Your task to perform on an android device: turn on bluetooth scan Image 0: 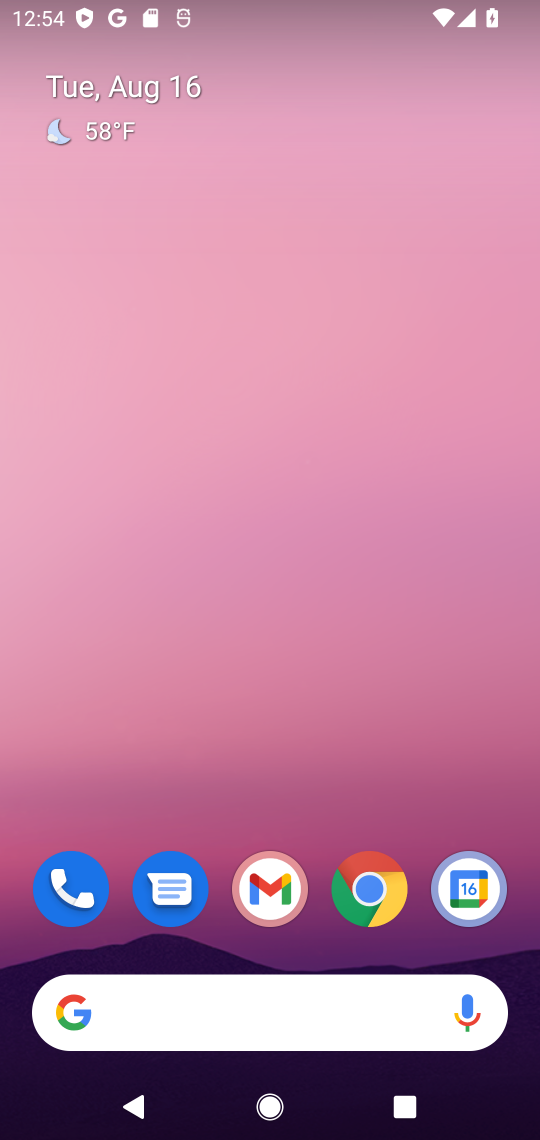
Step 0: drag from (224, 1030) to (152, 60)
Your task to perform on an android device: turn on bluetooth scan Image 1: 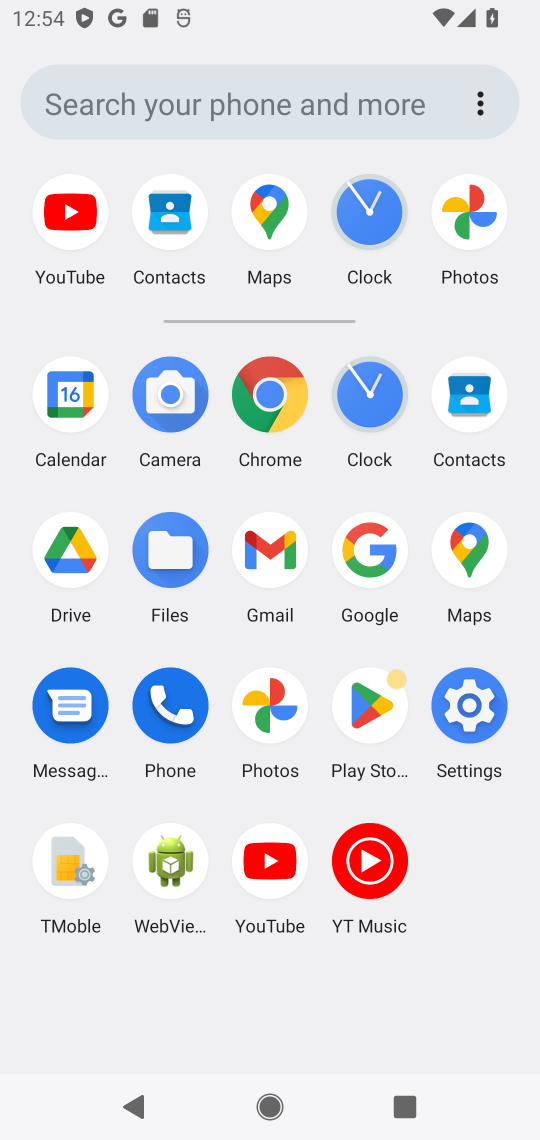
Step 1: click (465, 707)
Your task to perform on an android device: turn on bluetooth scan Image 2: 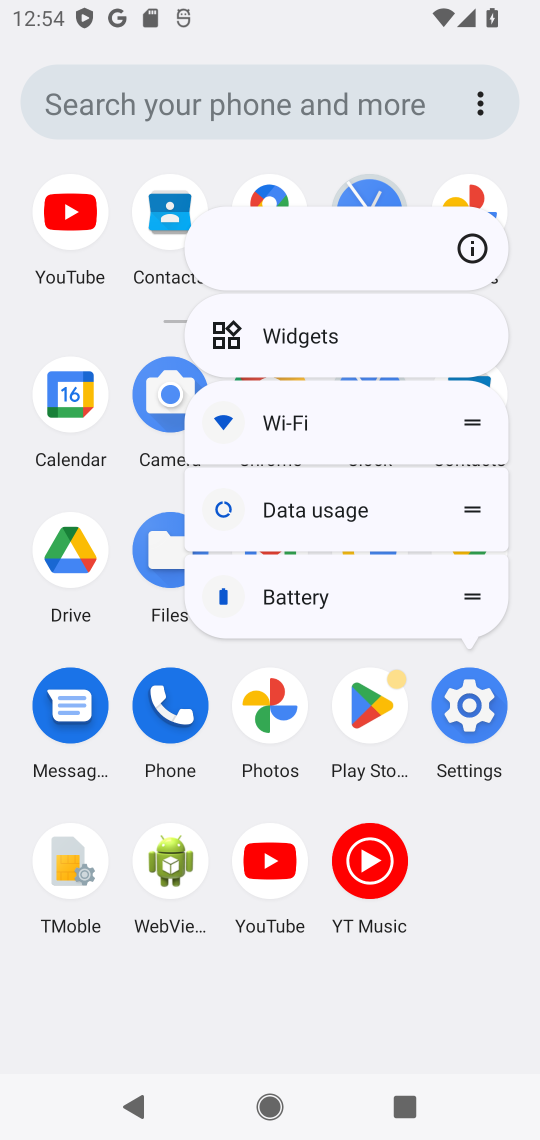
Step 2: click (465, 704)
Your task to perform on an android device: turn on bluetooth scan Image 3: 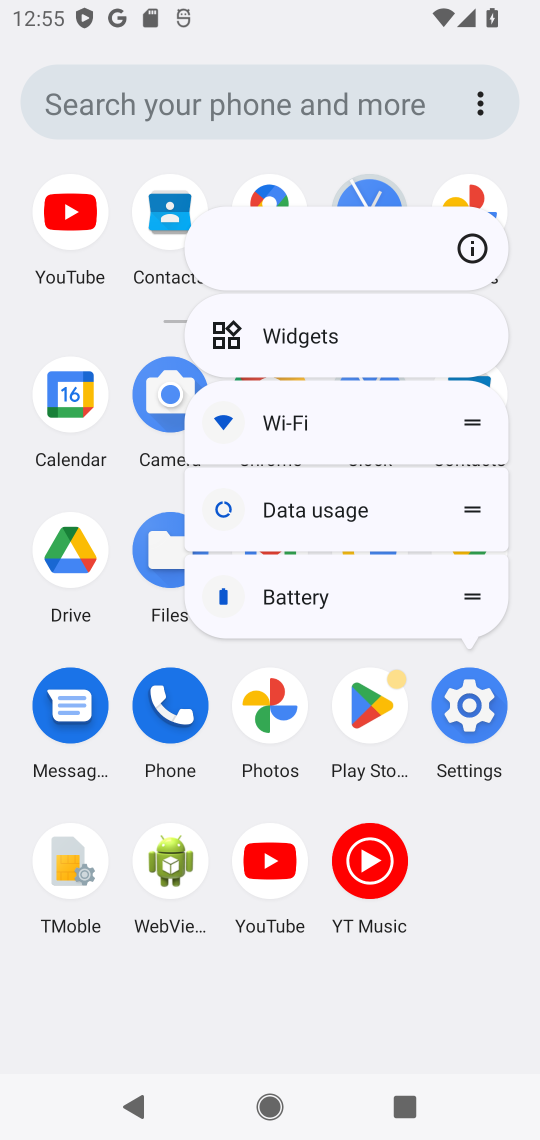
Step 3: click (465, 702)
Your task to perform on an android device: turn on bluetooth scan Image 4: 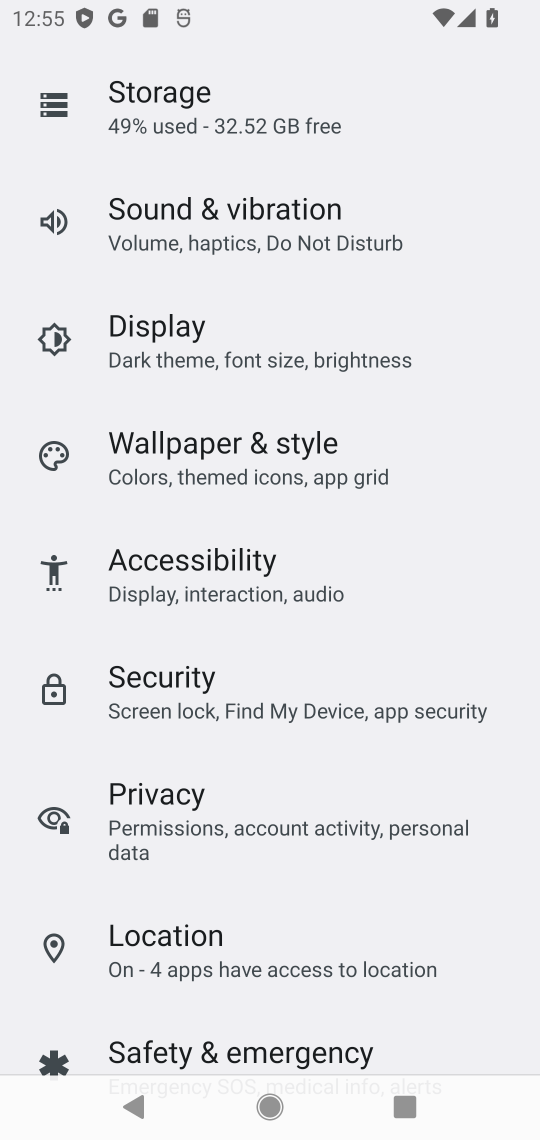
Step 4: click (260, 958)
Your task to perform on an android device: turn on bluetooth scan Image 5: 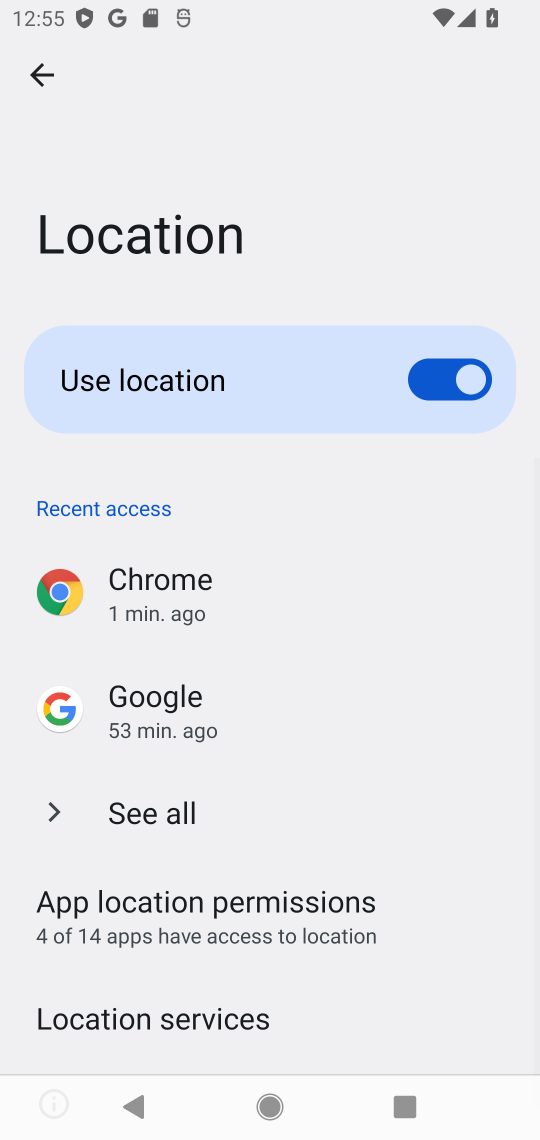
Step 5: drag from (292, 859) to (185, 95)
Your task to perform on an android device: turn on bluetooth scan Image 6: 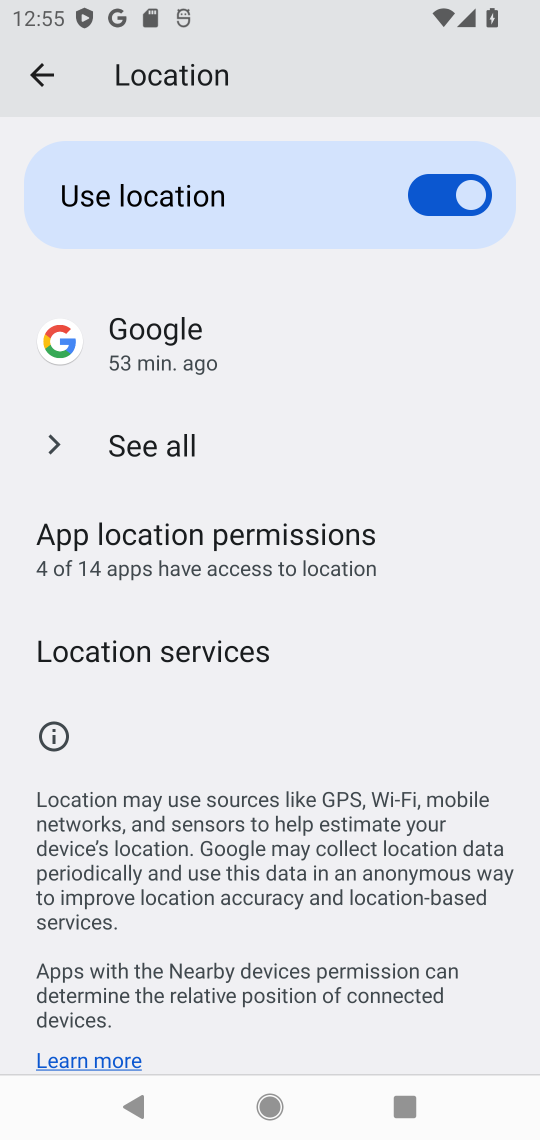
Step 6: drag from (279, 932) to (186, 264)
Your task to perform on an android device: turn on bluetooth scan Image 7: 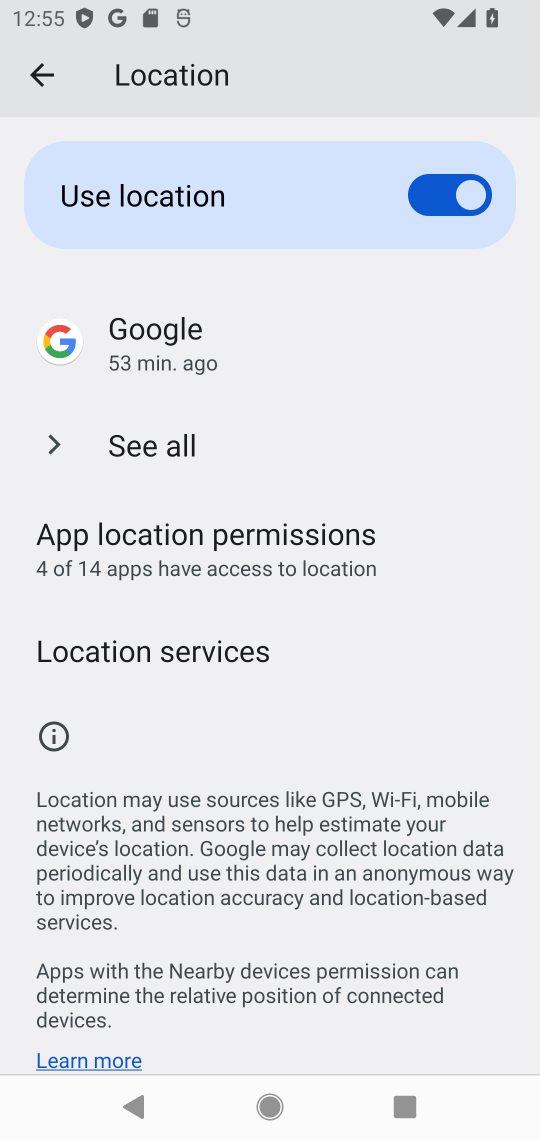
Step 7: click (68, 448)
Your task to perform on an android device: turn on bluetooth scan Image 8: 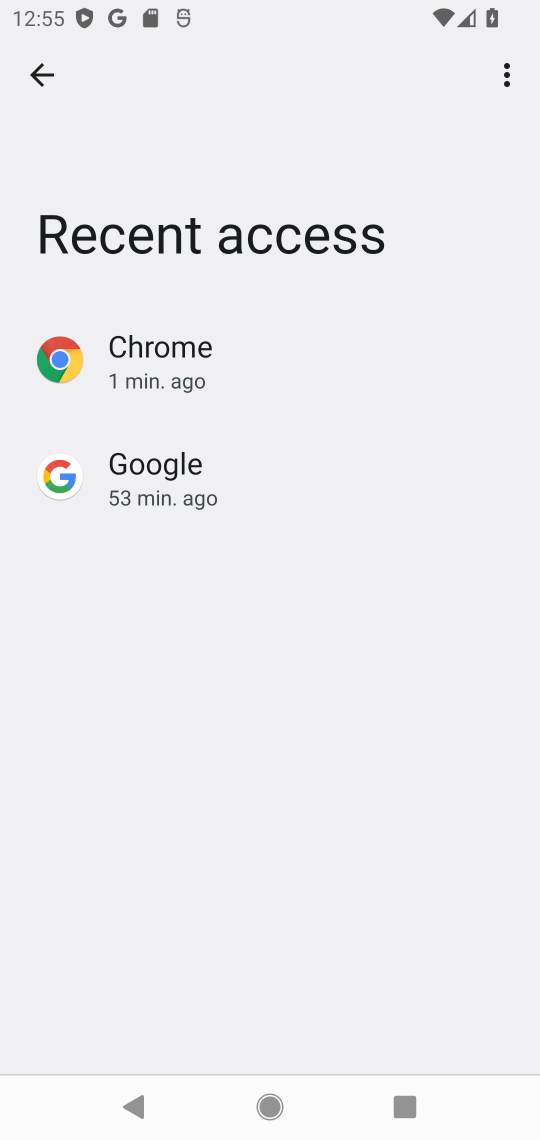
Step 8: task complete